Your task to perform on an android device: delete location history Image 0: 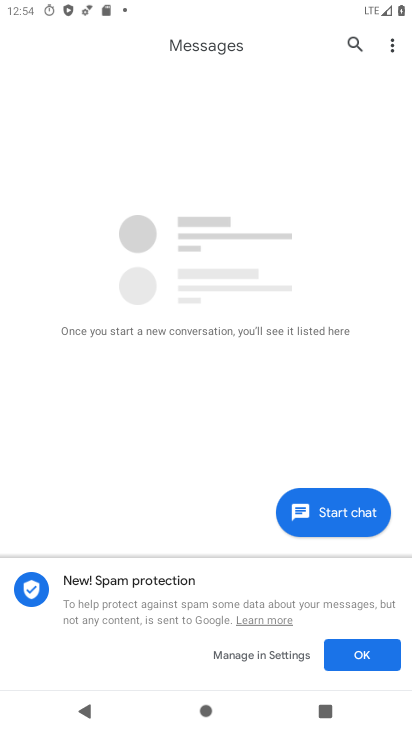
Step 0: press home button
Your task to perform on an android device: delete location history Image 1: 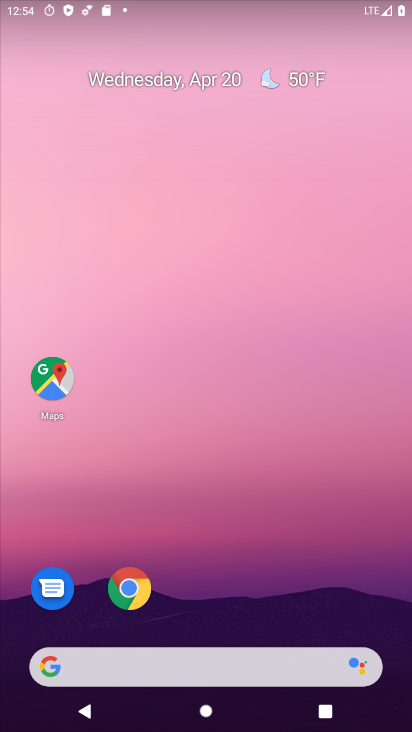
Step 1: click (51, 374)
Your task to perform on an android device: delete location history Image 2: 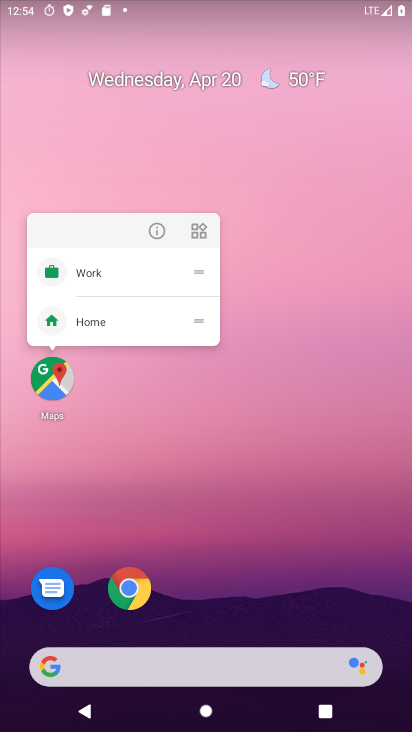
Step 2: click (51, 374)
Your task to perform on an android device: delete location history Image 3: 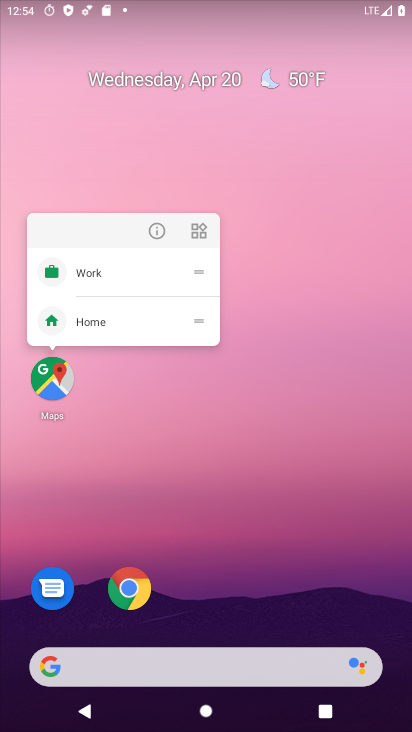
Step 3: click (51, 374)
Your task to perform on an android device: delete location history Image 4: 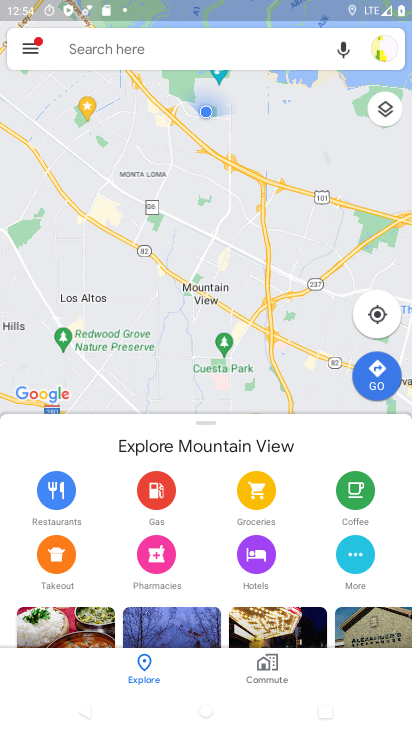
Step 4: click (34, 45)
Your task to perform on an android device: delete location history Image 5: 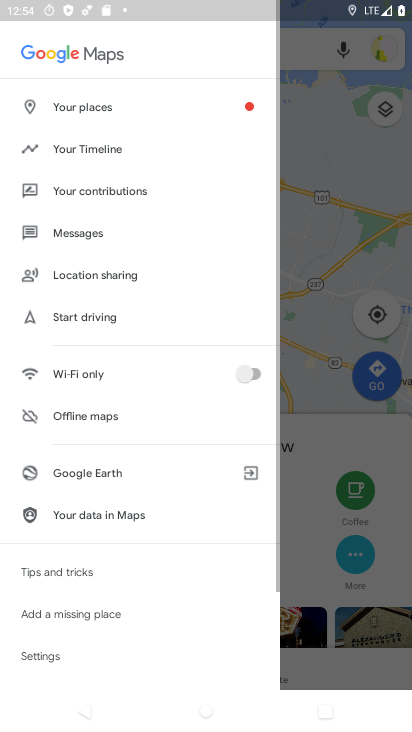
Step 5: click (69, 143)
Your task to perform on an android device: delete location history Image 6: 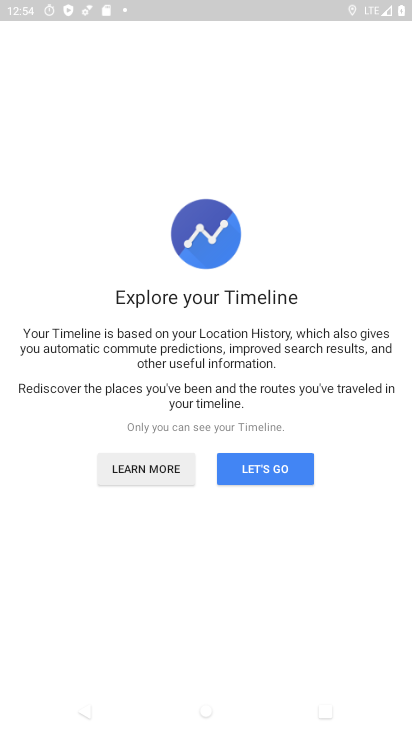
Step 6: click (263, 468)
Your task to perform on an android device: delete location history Image 7: 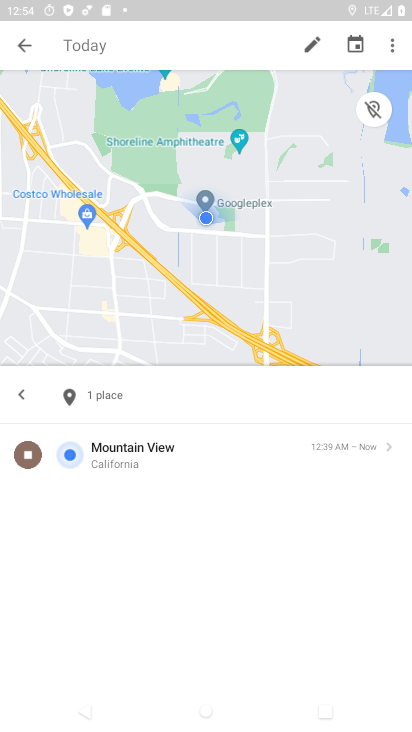
Step 7: click (384, 53)
Your task to perform on an android device: delete location history Image 8: 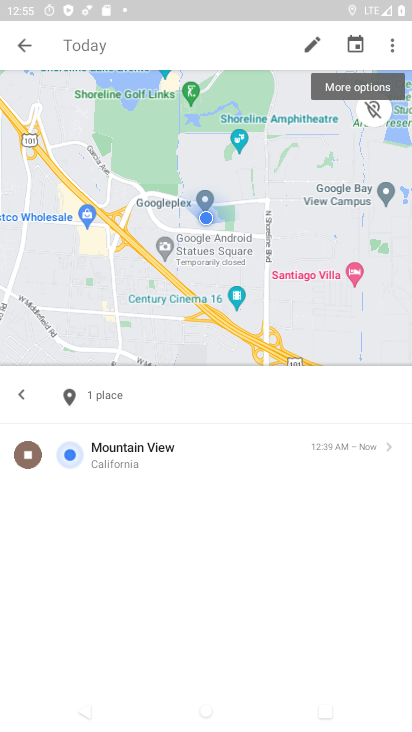
Step 8: click (391, 59)
Your task to perform on an android device: delete location history Image 9: 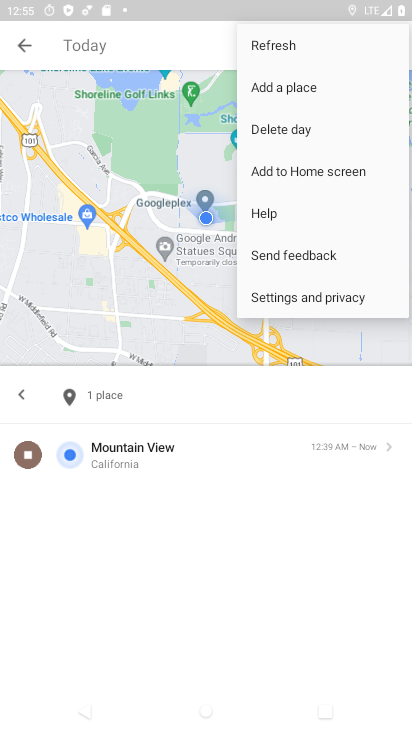
Step 9: drag from (389, 43) to (323, 296)
Your task to perform on an android device: delete location history Image 10: 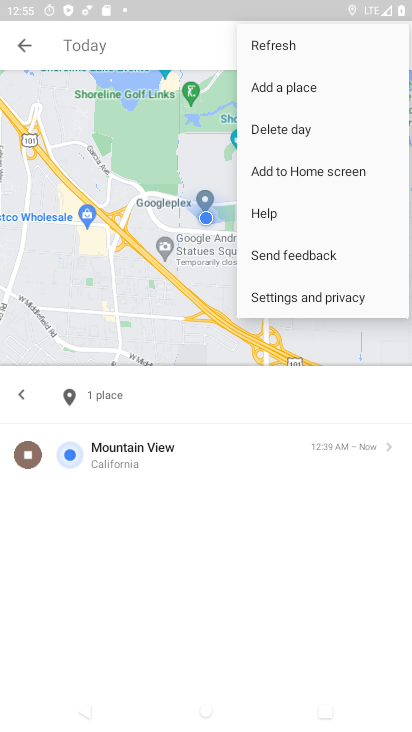
Step 10: click (323, 296)
Your task to perform on an android device: delete location history Image 11: 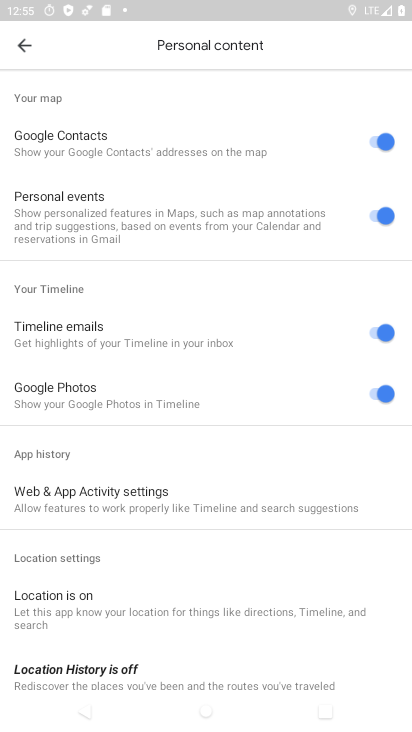
Step 11: drag from (151, 642) to (110, 334)
Your task to perform on an android device: delete location history Image 12: 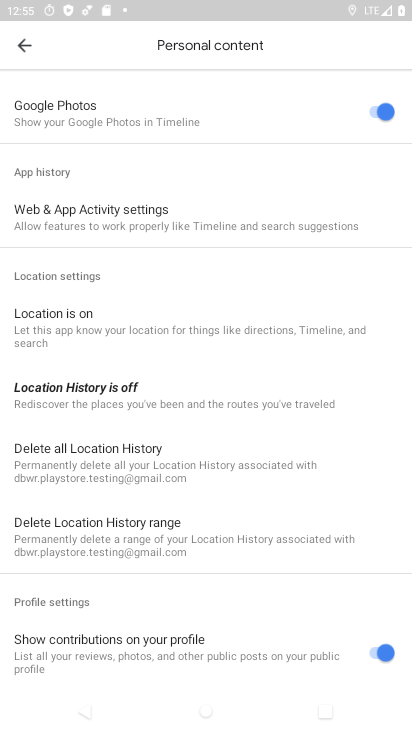
Step 12: click (126, 458)
Your task to perform on an android device: delete location history Image 13: 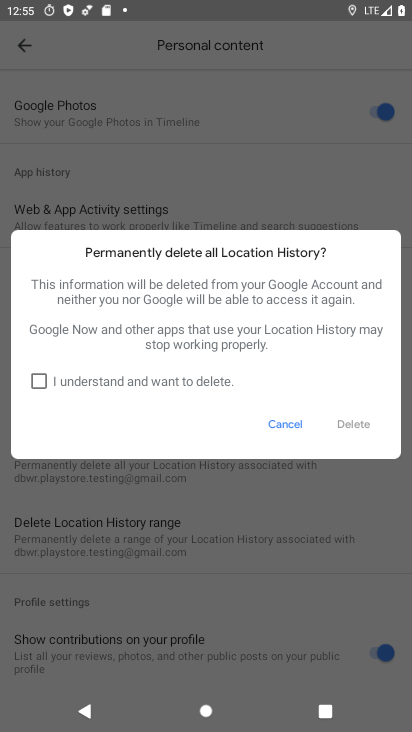
Step 13: click (38, 376)
Your task to perform on an android device: delete location history Image 14: 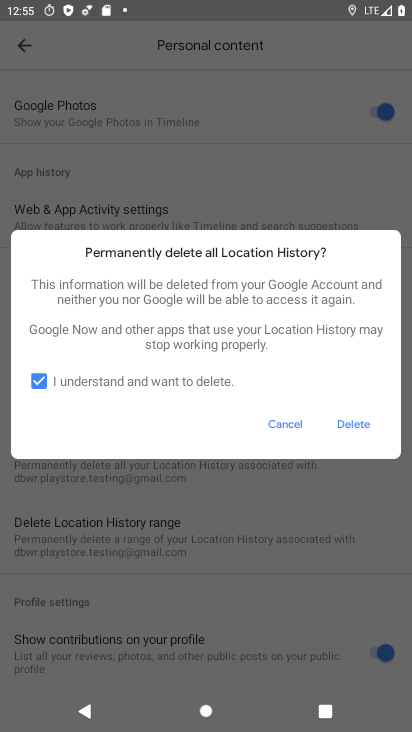
Step 14: click (346, 424)
Your task to perform on an android device: delete location history Image 15: 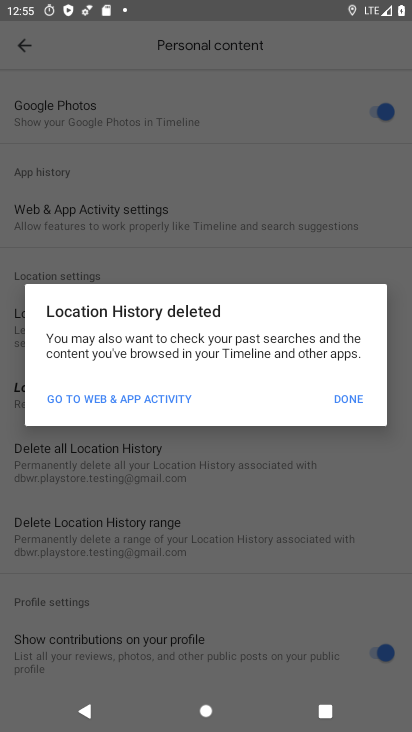
Step 15: click (347, 394)
Your task to perform on an android device: delete location history Image 16: 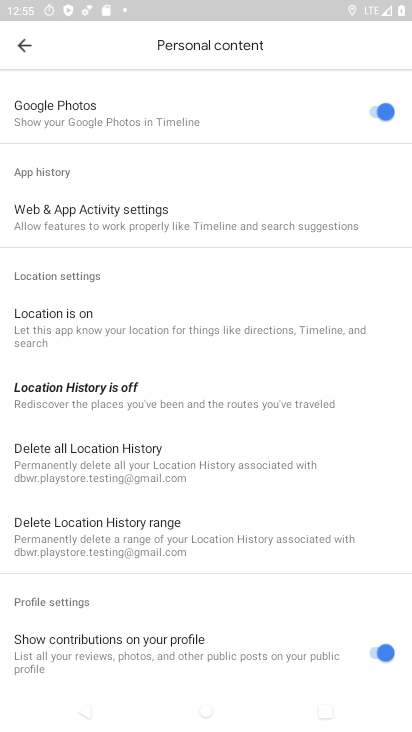
Step 16: task complete